Your task to perform on an android device: change notification settings in the gmail app Image 0: 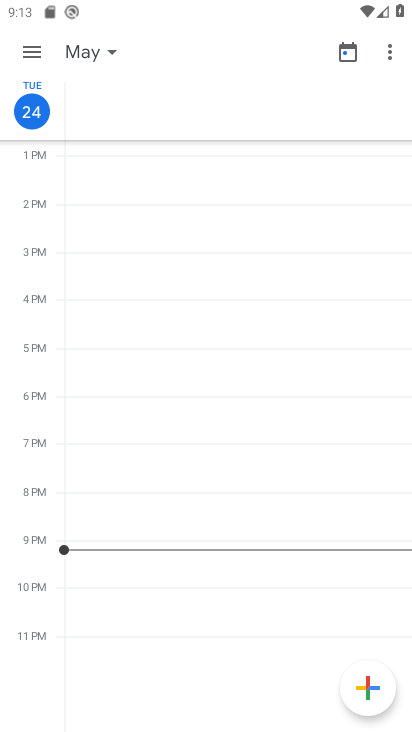
Step 0: press home button
Your task to perform on an android device: change notification settings in the gmail app Image 1: 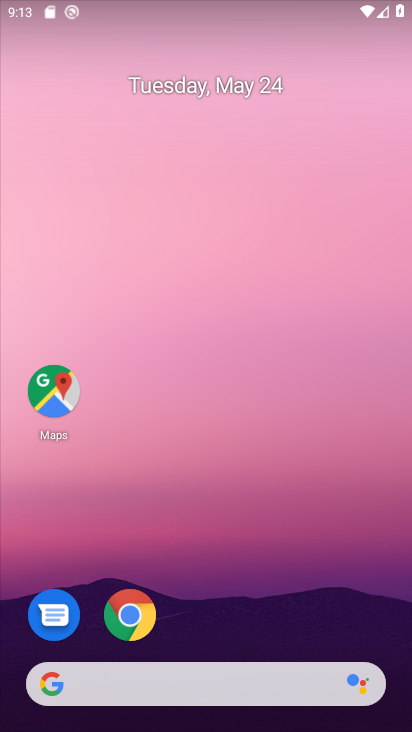
Step 1: drag from (362, 623) to (368, 271)
Your task to perform on an android device: change notification settings in the gmail app Image 2: 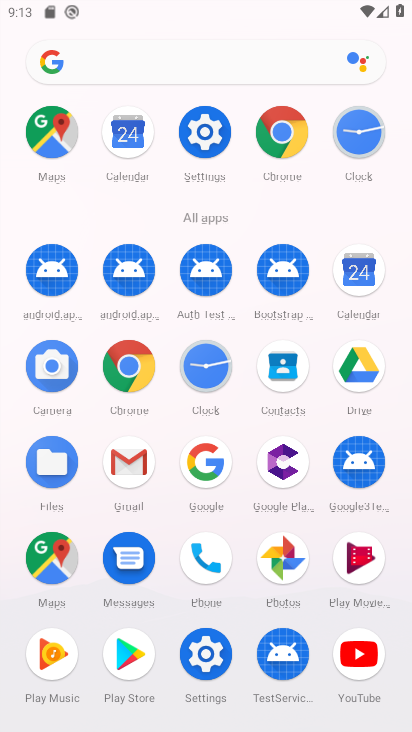
Step 2: click (134, 477)
Your task to perform on an android device: change notification settings in the gmail app Image 3: 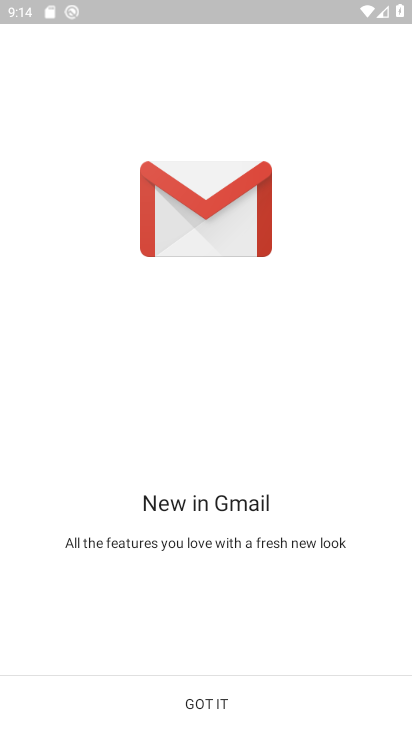
Step 3: click (255, 705)
Your task to perform on an android device: change notification settings in the gmail app Image 4: 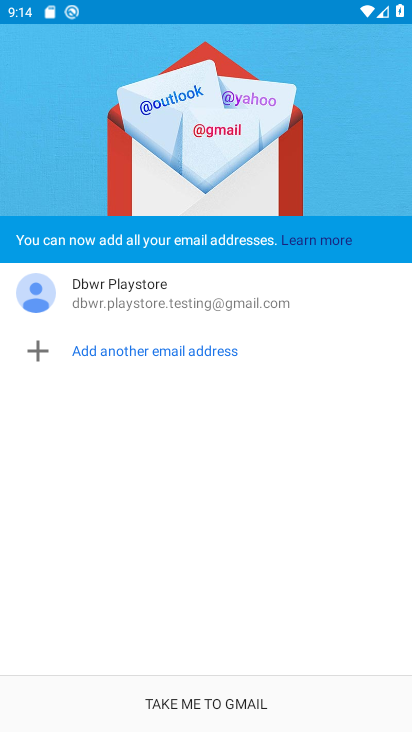
Step 4: click (265, 701)
Your task to perform on an android device: change notification settings in the gmail app Image 5: 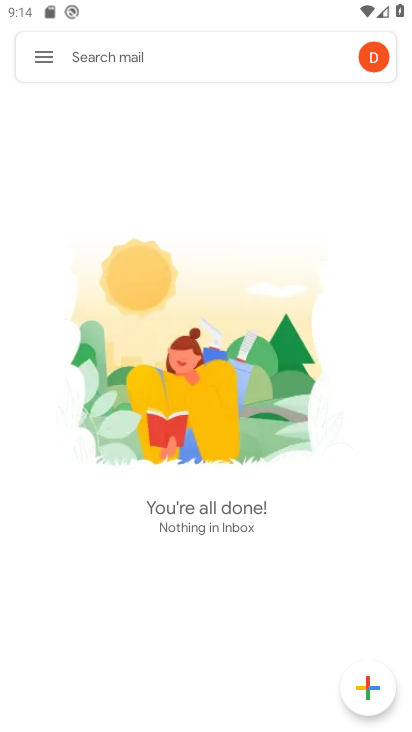
Step 5: click (42, 51)
Your task to perform on an android device: change notification settings in the gmail app Image 6: 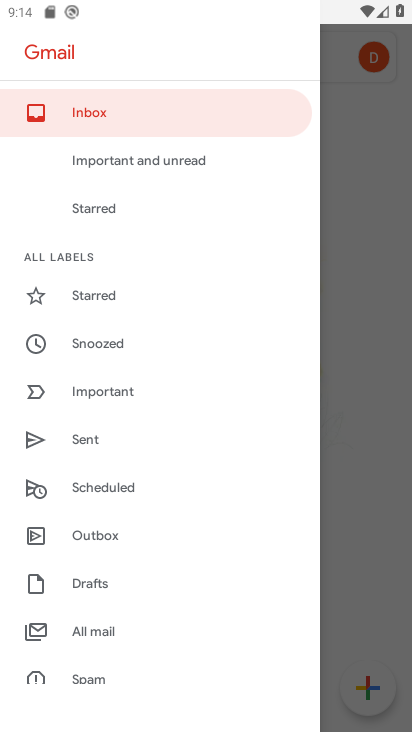
Step 6: drag from (232, 632) to (219, 485)
Your task to perform on an android device: change notification settings in the gmail app Image 7: 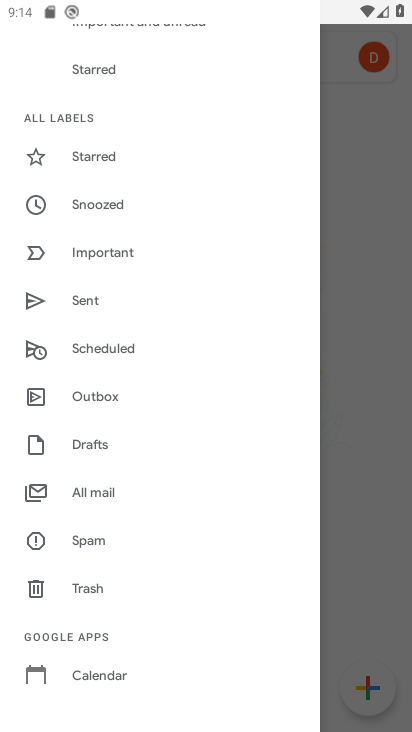
Step 7: drag from (228, 664) to (214, 535)
Your task to perform on an android device: change notification settings in the gmail app Image 8: 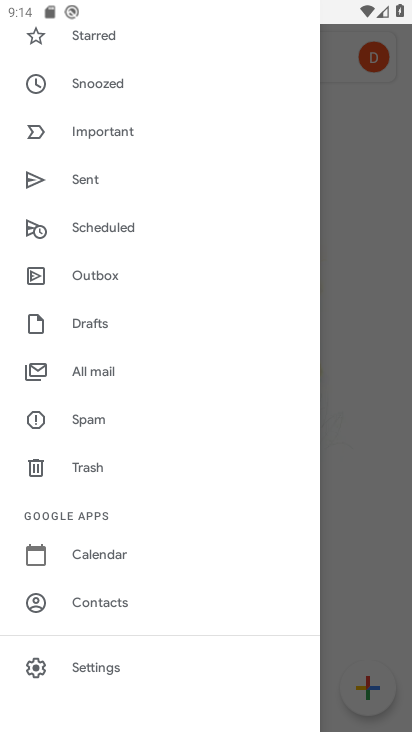
Step 8: drag from (212, 647) to (213, 530)
Your task to perform on an android device: change notification settings in the gmail app Image 9: 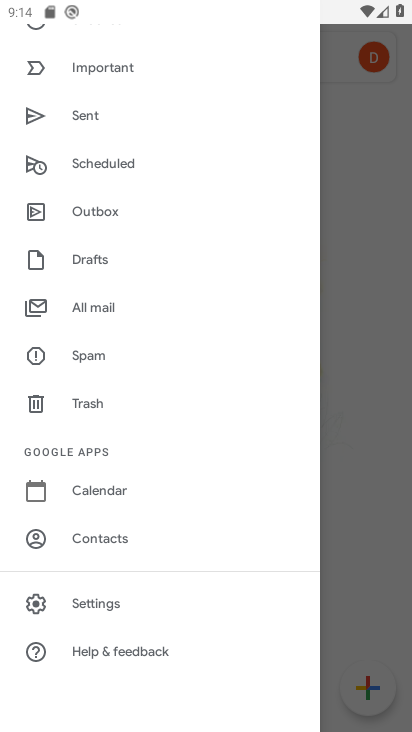
Step 9: click (114, 607)
Your task to perform on an android device: change notification settings in the gmail app Image 10: 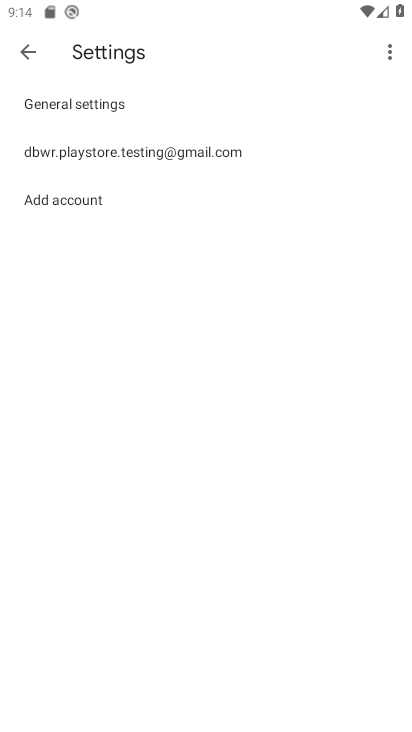
Step 10: click (205, 155)
Your task to perform on an android device: change notification settings in the gmail app Image 11: 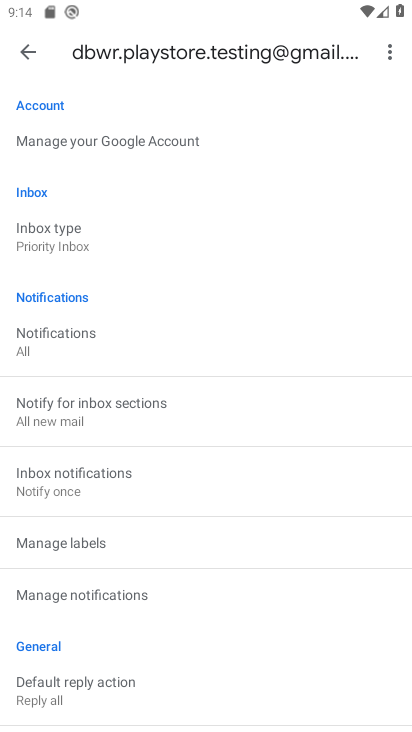
Step 11: drag from (283, 516) to (288, 389)
Your task to perform on an android device: change notification settings in the gmail app Image 12: 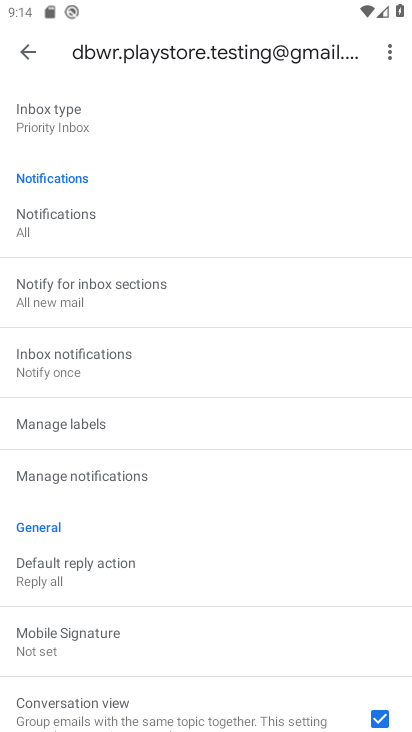
Step 12: drag from (289, 567) to (287, 445)
Your task to perform on an android device: change notification settings in the gmail app Image 13: 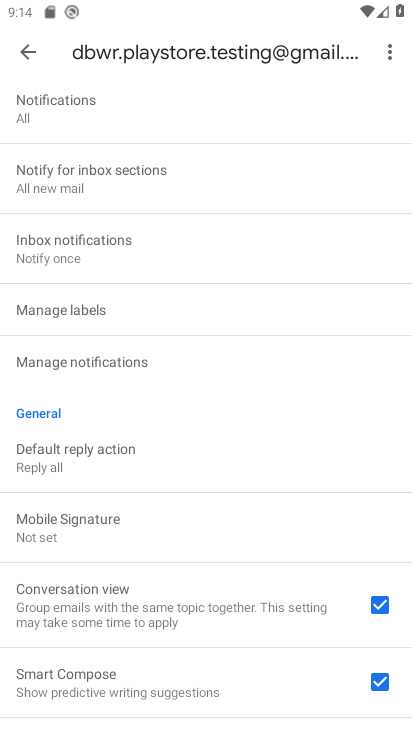
Step 13: drag from (274, 619) to (261, 460)
Your task to perform on an android device: change notification settings in the gmail app Image 14: 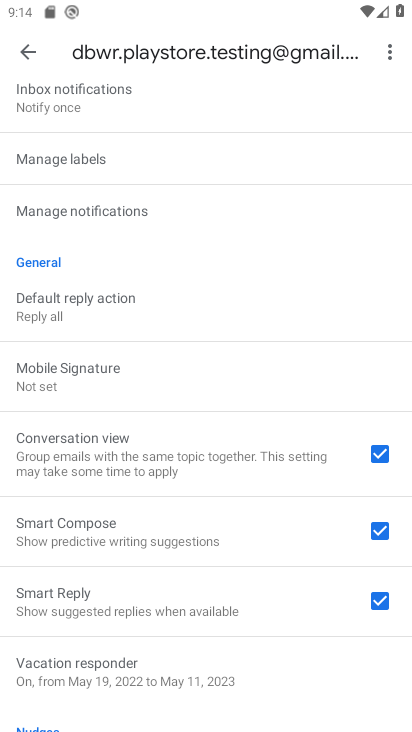
Step 14: drag from (277, 561) to (288, 440)
Your task to perform on an android device: change notification settings in the gmail app Image 15: 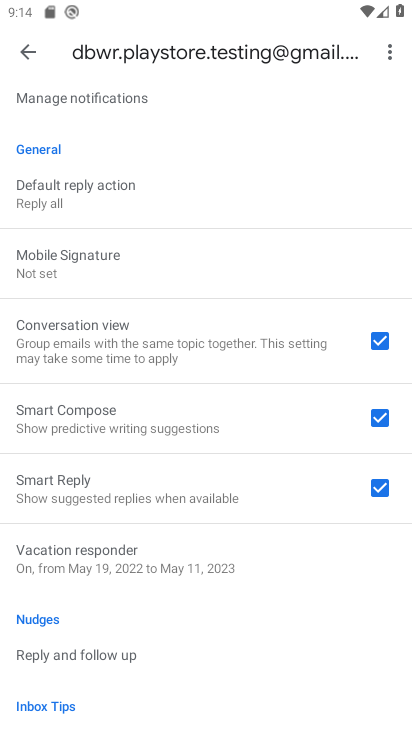
Step 15: drag from (267, 624) to (286, 477)
Your task to perform on an android device: change notification settings in the gmail app Image 16: 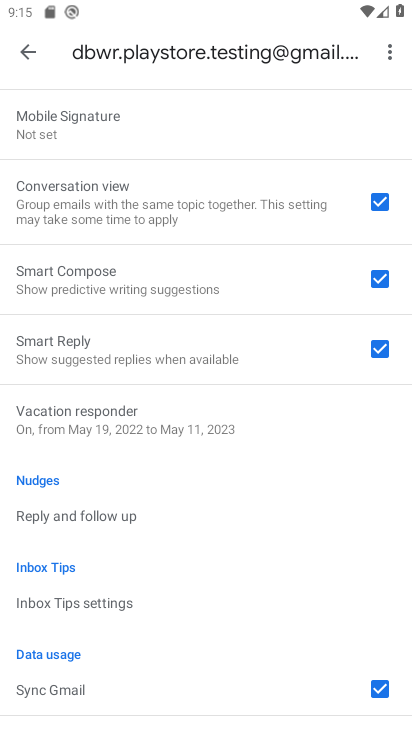
Step 16: drag from (277, 569) to (278, 456)
Your task to perform on an android device: change notification settings in the gmail app Image 17: 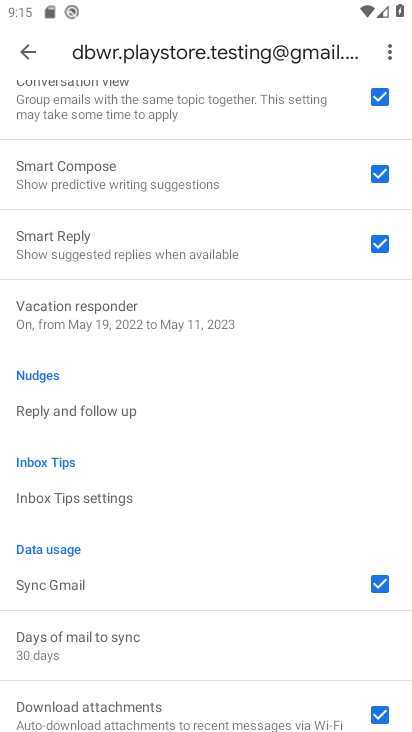
Step 17: drag from (272, 348) to (263, 477)
Your task to perform on an android device: change notification settings in the gmail app Image 18: 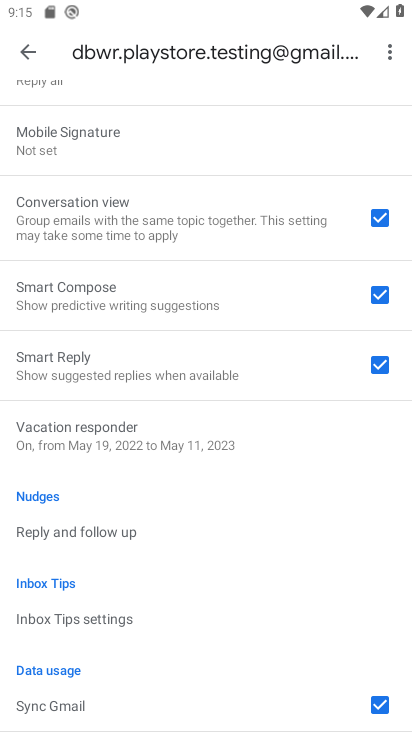
Step 18: drag from (256, 313) to (265, 460)
Your task to perform on an android device: change notification settings in the gmail app Image 19: 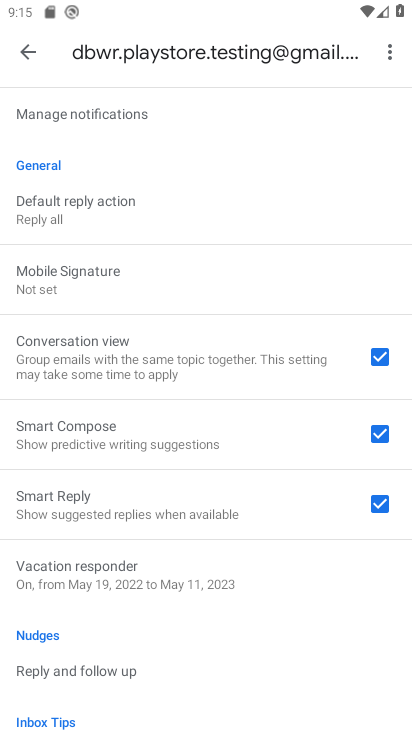
Step 19: drag from (269, 305) to (282, 430)
Your task to perform on an android device: change notification settings in the gmail app Image 20: 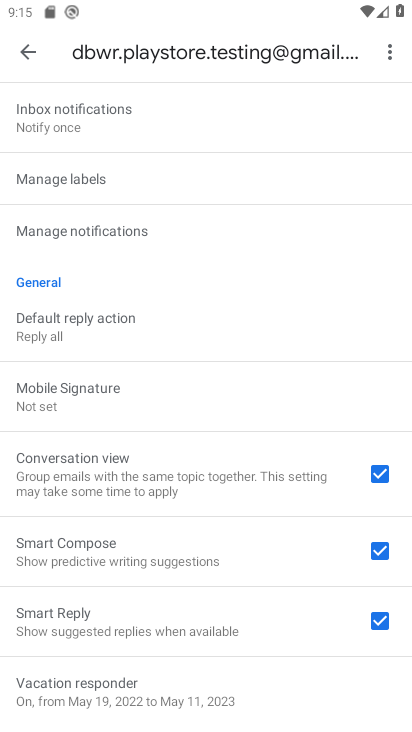
Step 20: drag from (254, 285) to (263, 404)
Your task to perform on an android device: change notification settings in the gmail app Image 21: 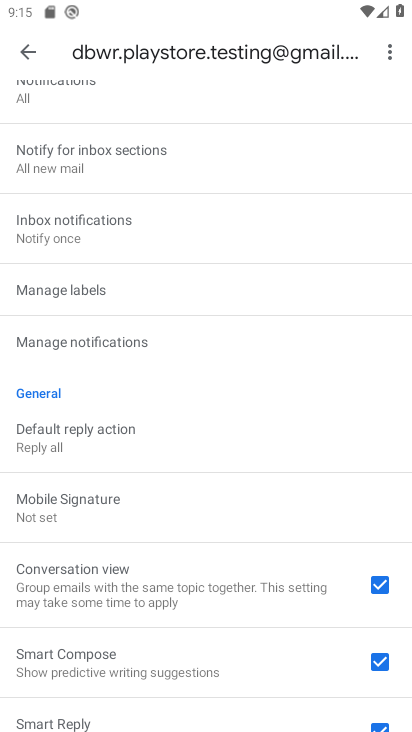
Step 21: drag from (211, 159) to (205, 367)
Your task to perform on an android device: change notification settings in the gmail app Image 22: 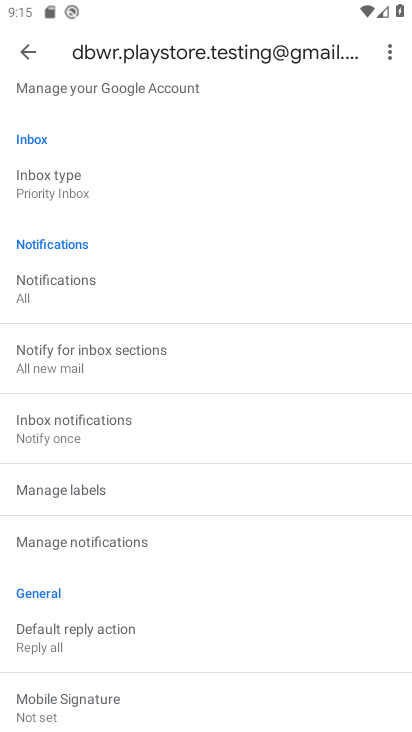
Step 22: click (95, 288)
Your task to perform on an android device: change notification settings in the gmail app Image 23: 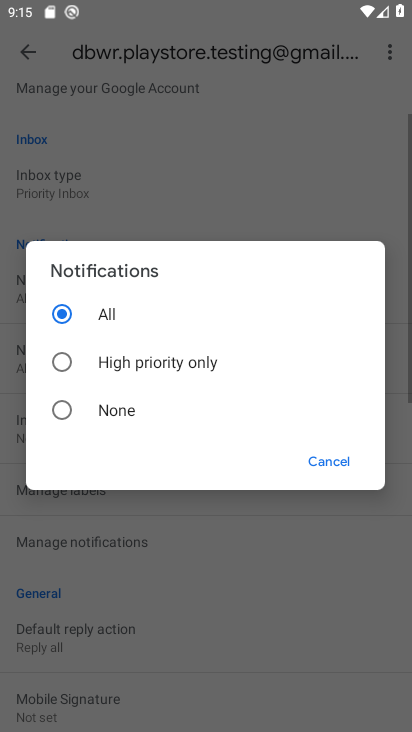
Step 23: click (133, 357)
Your task to perform on an android device: change notification settings in the gmail app Image 24: 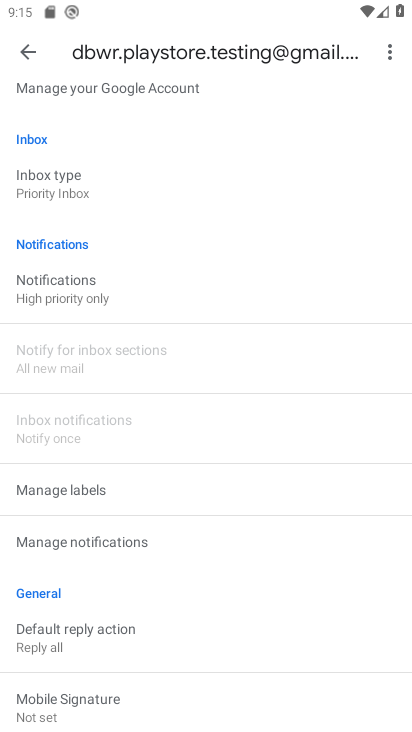
Step 24: task complete